Your task to perform on an android device: turn off picture-in-picture Image 0: 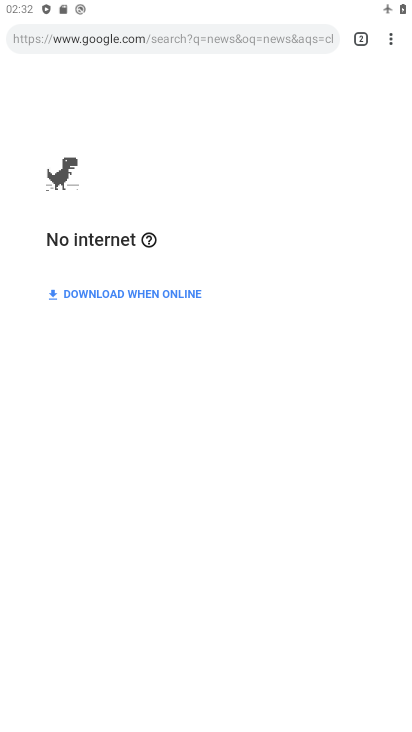
Step 0: press home button
Your task to perform on an android device: turn off picture-in-picture Image 1: 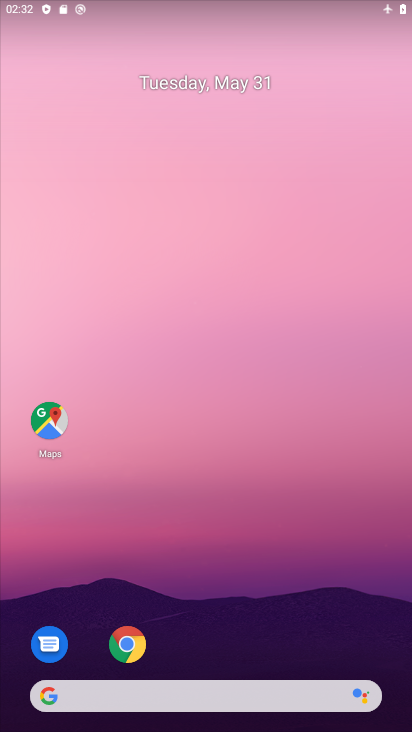
Step 1: click (127, 643)
Your task to perform on an android device: turn off picture-in-picture Image 2: 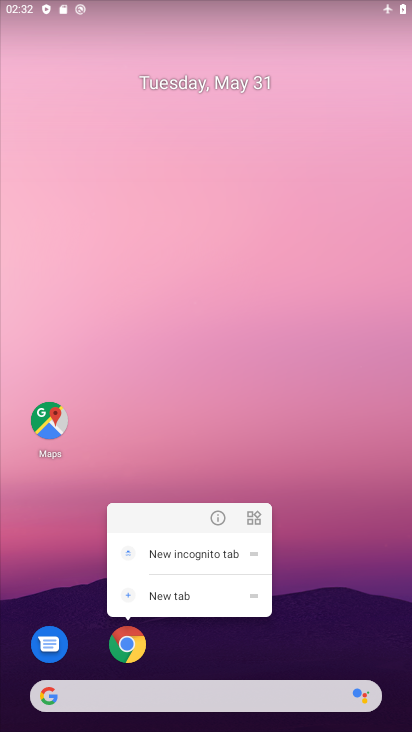
Step 2: click (219, 520)
Your task to perform on an android device: turn off picture-in-picture Image 3: 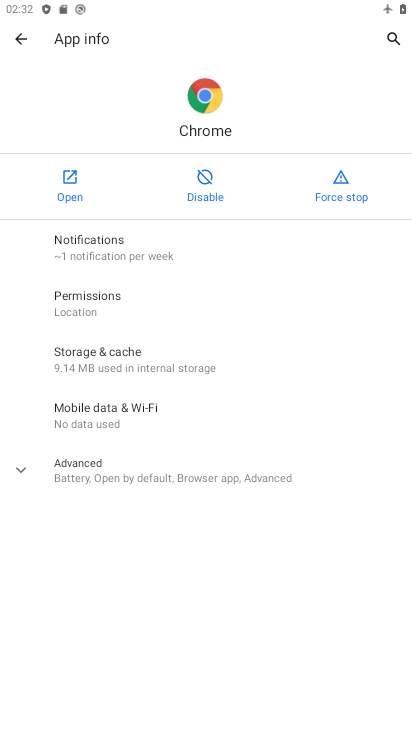
Step 3: click (144, 483)
Your task to perform on an android device: turn off picture-in-picture Image 4: 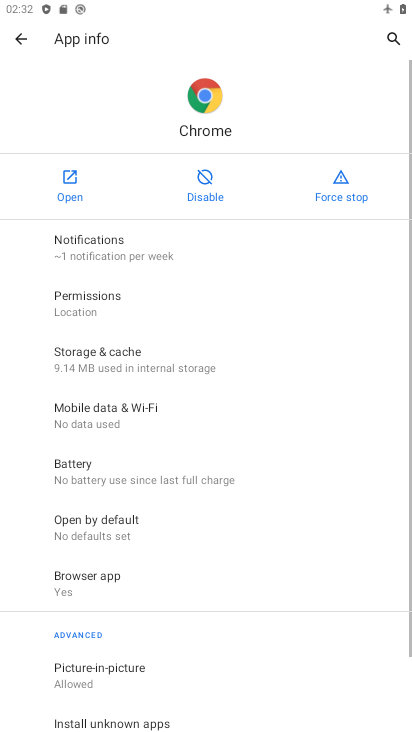
Step 4: drag from (246, 630) to (254, 172)
Your task to perform on an android device: turn off picture-in-picture Image 5: 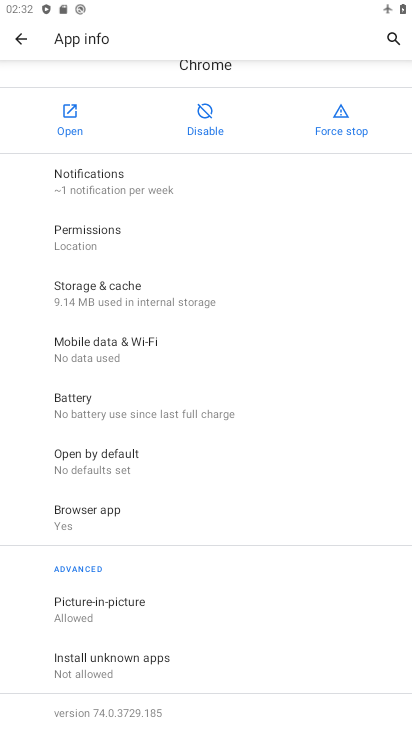
Step 5: click (85, 611)
Your task to perform on an android device: turn off picture-in-picture Image 6: 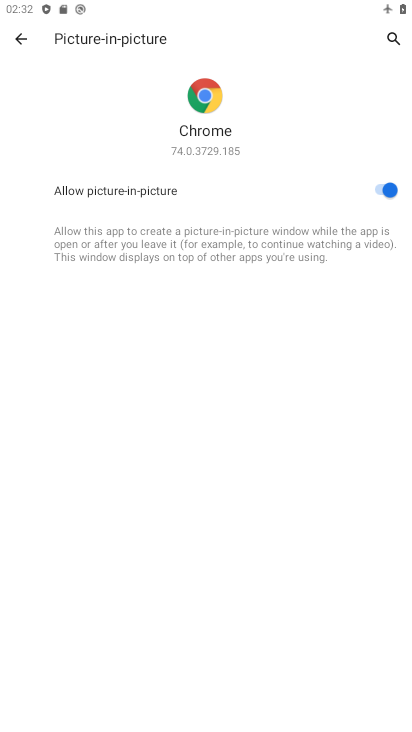
Step 6: click (383, 195)
Your task to perform on an android device: turn off picture-in-picture Image 7: 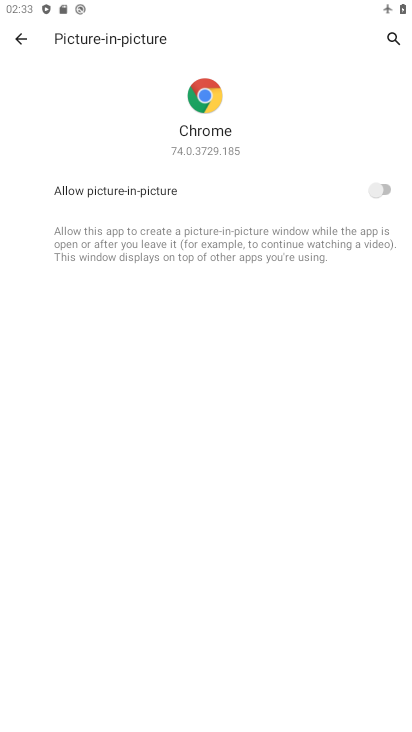
Step 7: task complete